Your task to perform on an android device: Go to Reddit.com Image 0: 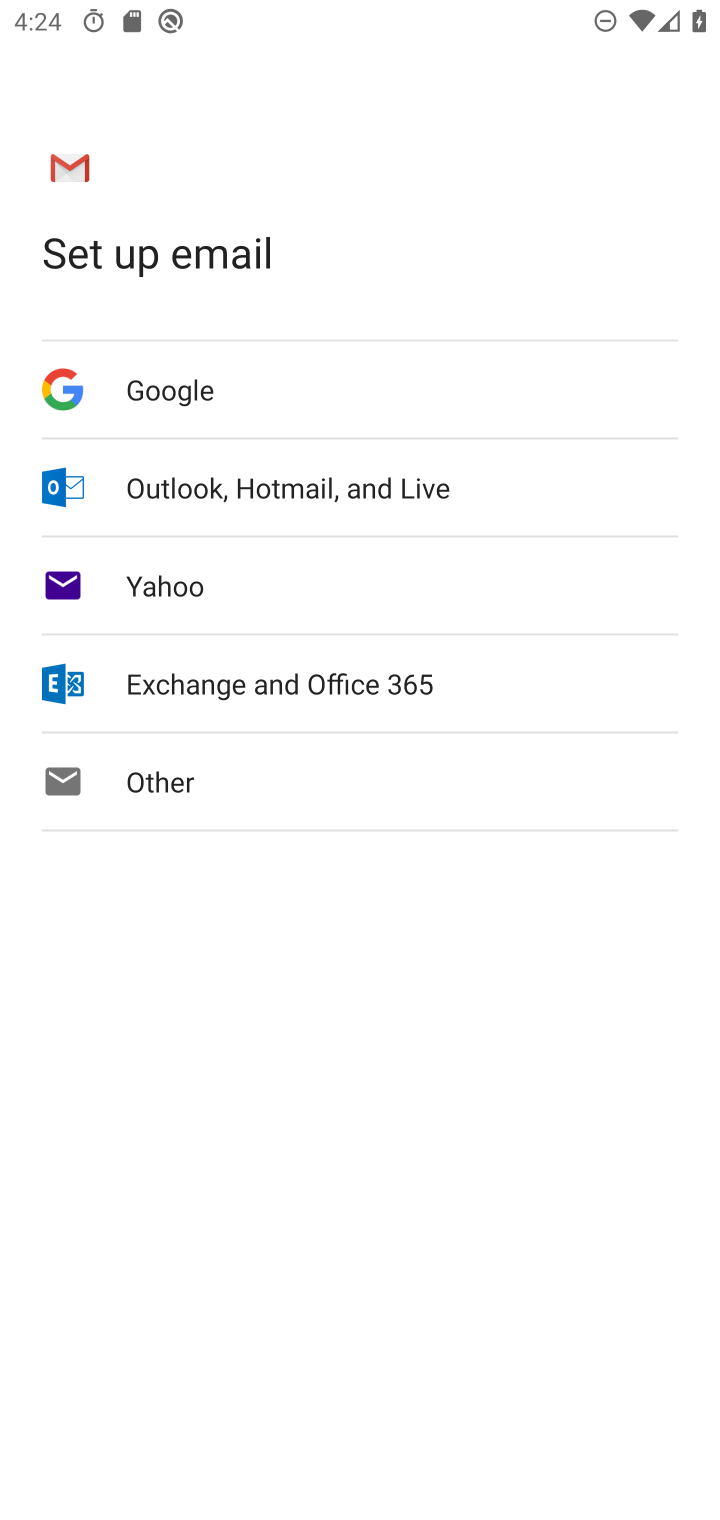
Step 0: press home button
Your task to perform on an android device: Go to Reddit.com Image 1: 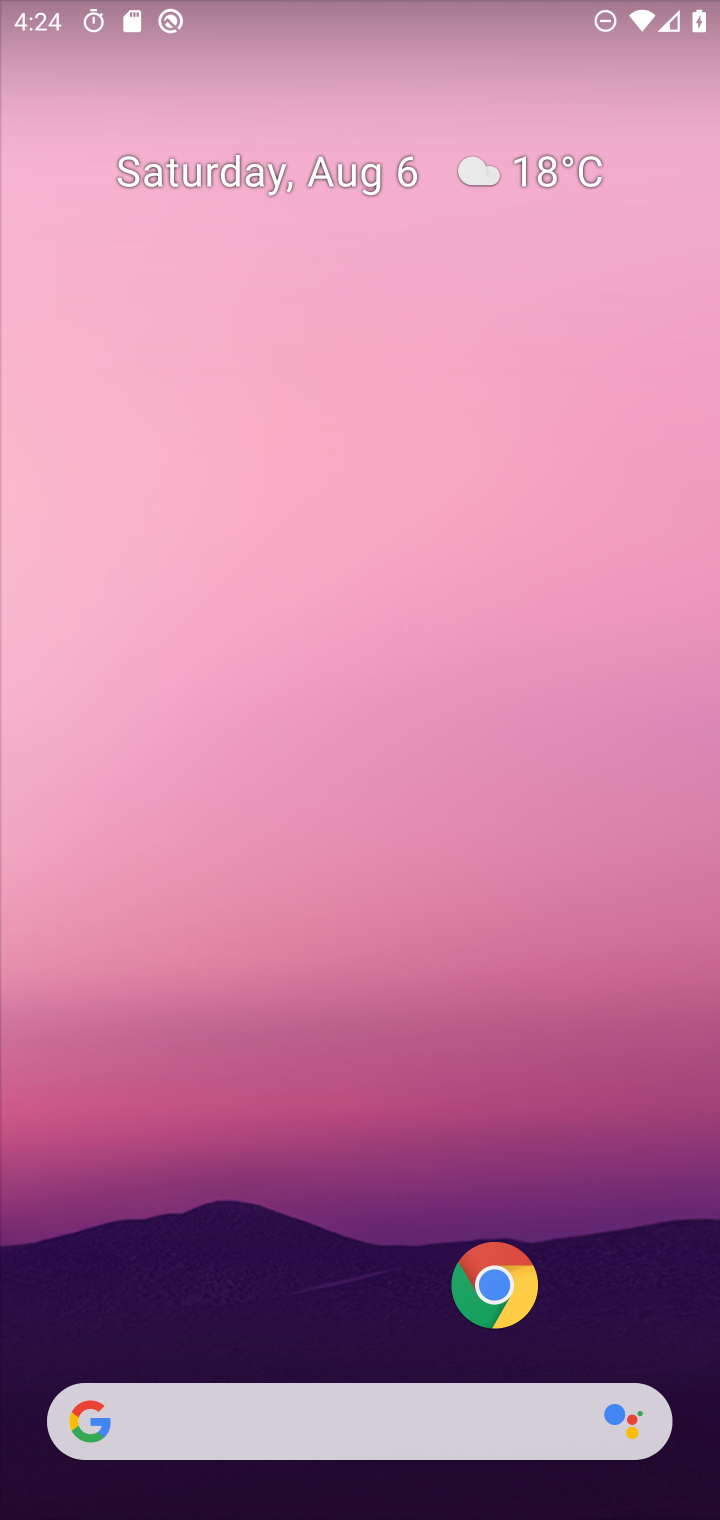
Step 1: drag from (349, 1314) to (356, 155)
Your task to perform on an android device: Go to Reddit.com Image 2: 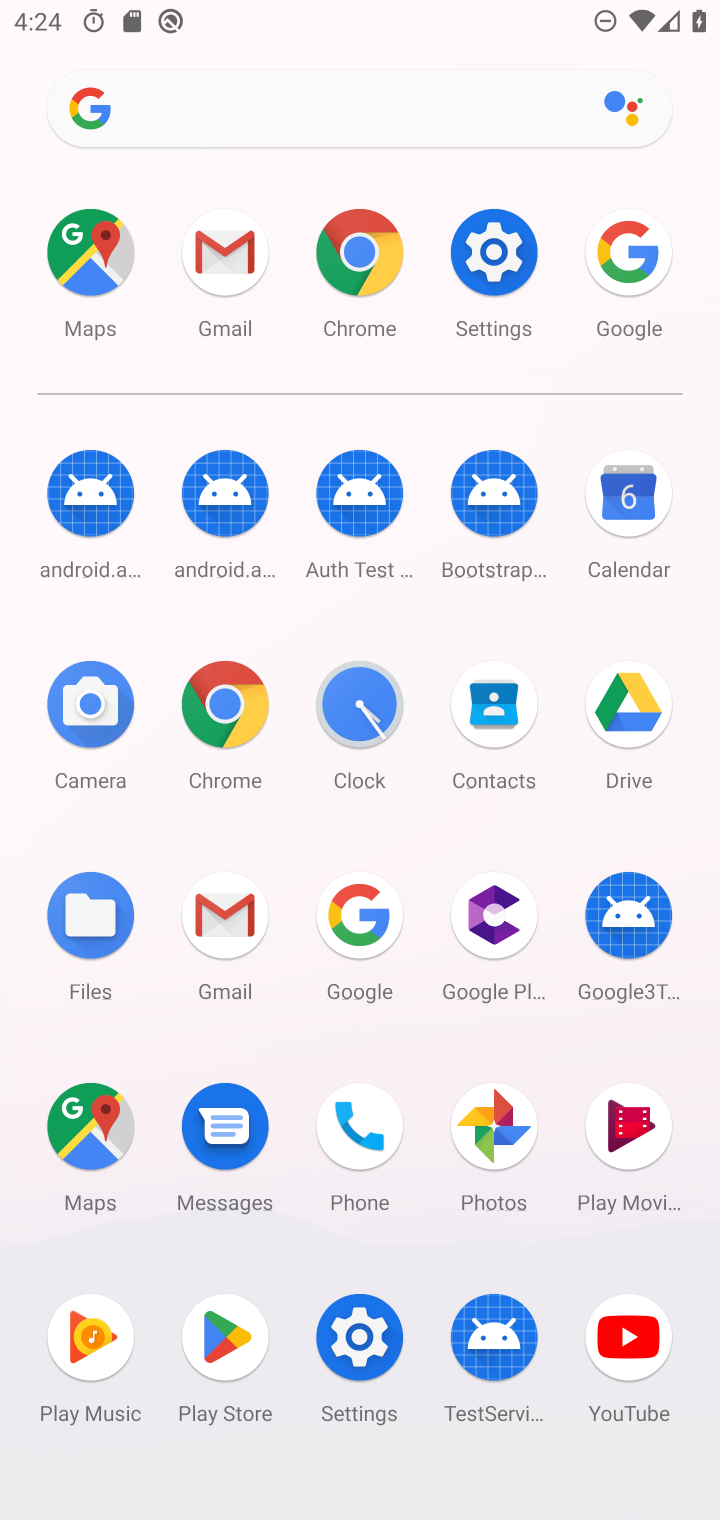
Step 2: click (376, 255)
Your task to perform on an android device: Go to Reddit.com Image 3: 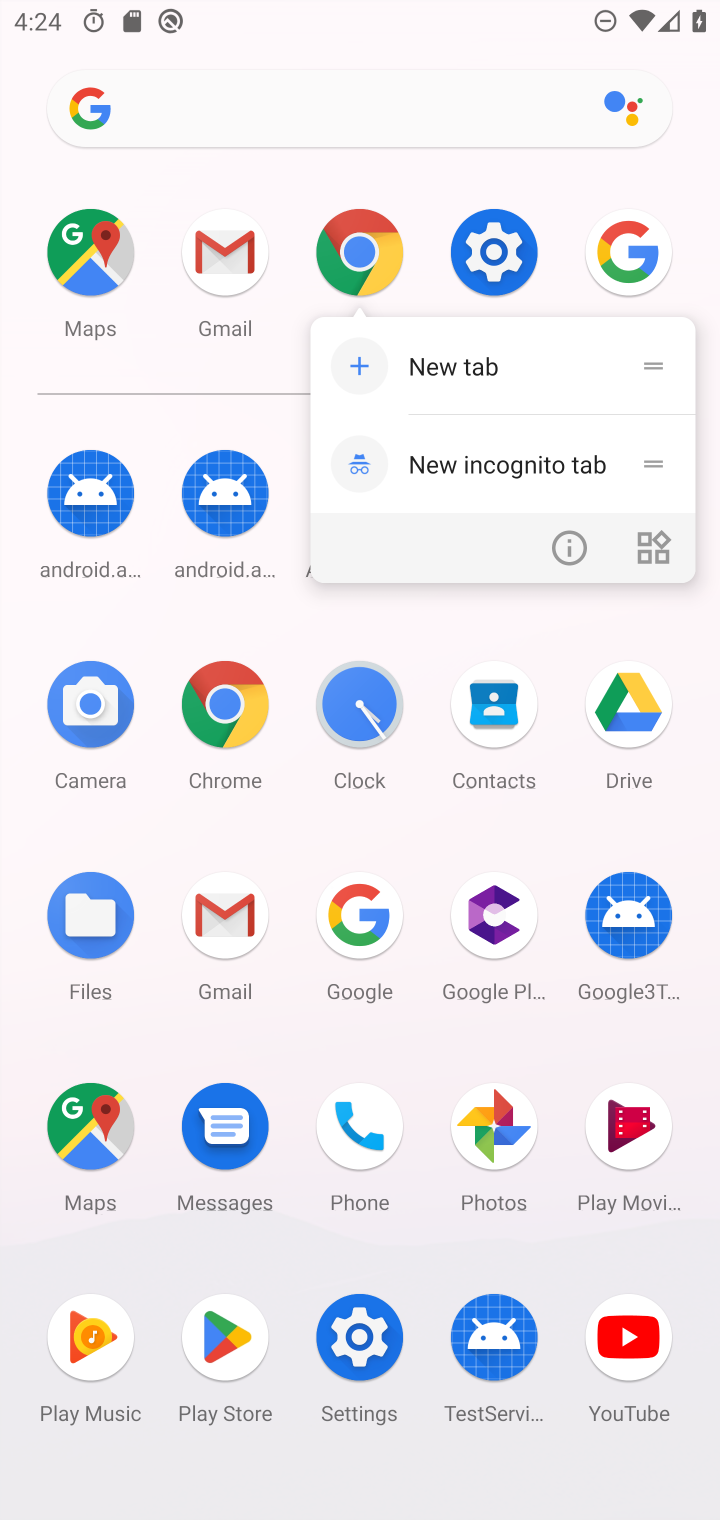
Step 3: click (353, 240)
Your task to perform on an android device: Go to Reddit.com Image 4: 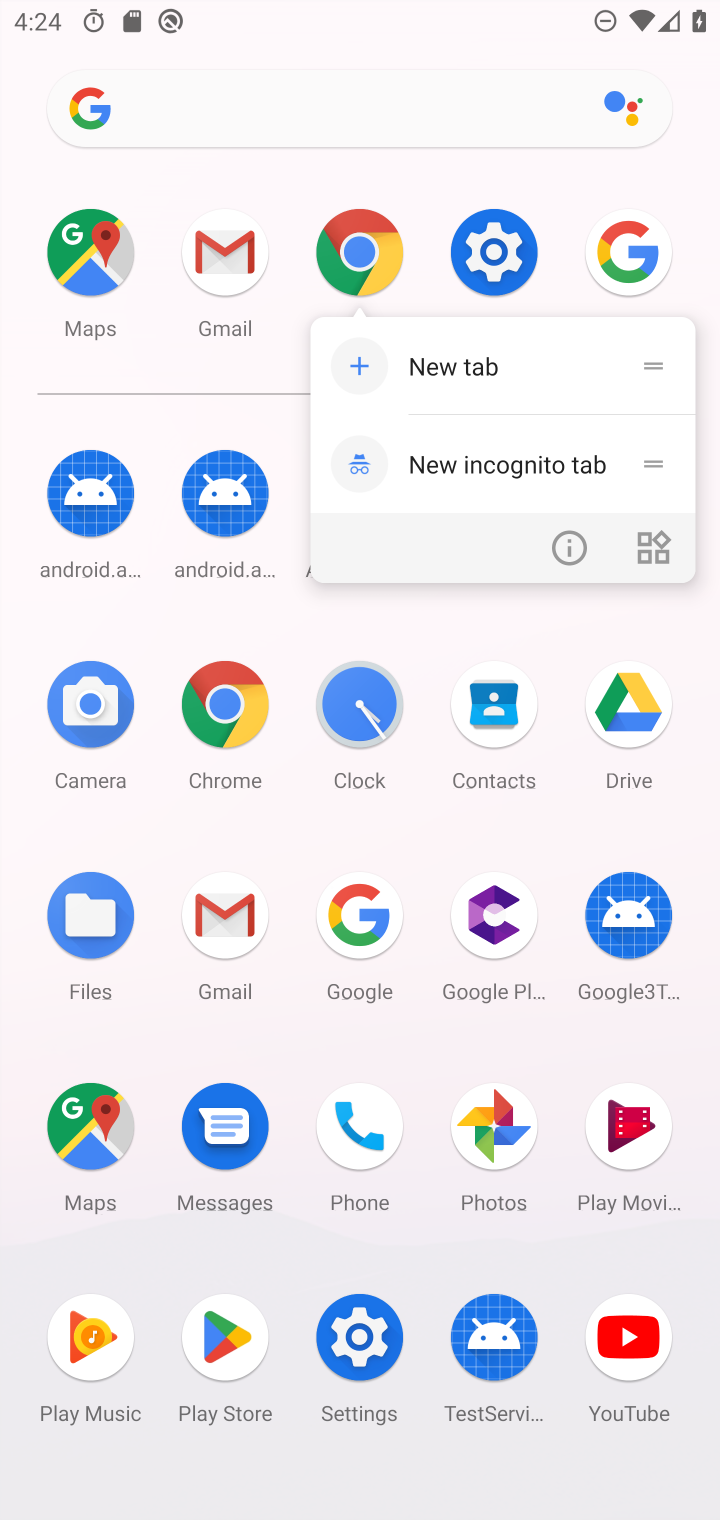
Step 4: click (361, 237)
Your task to perform on an android device: Go to Reddit.com Image 5: 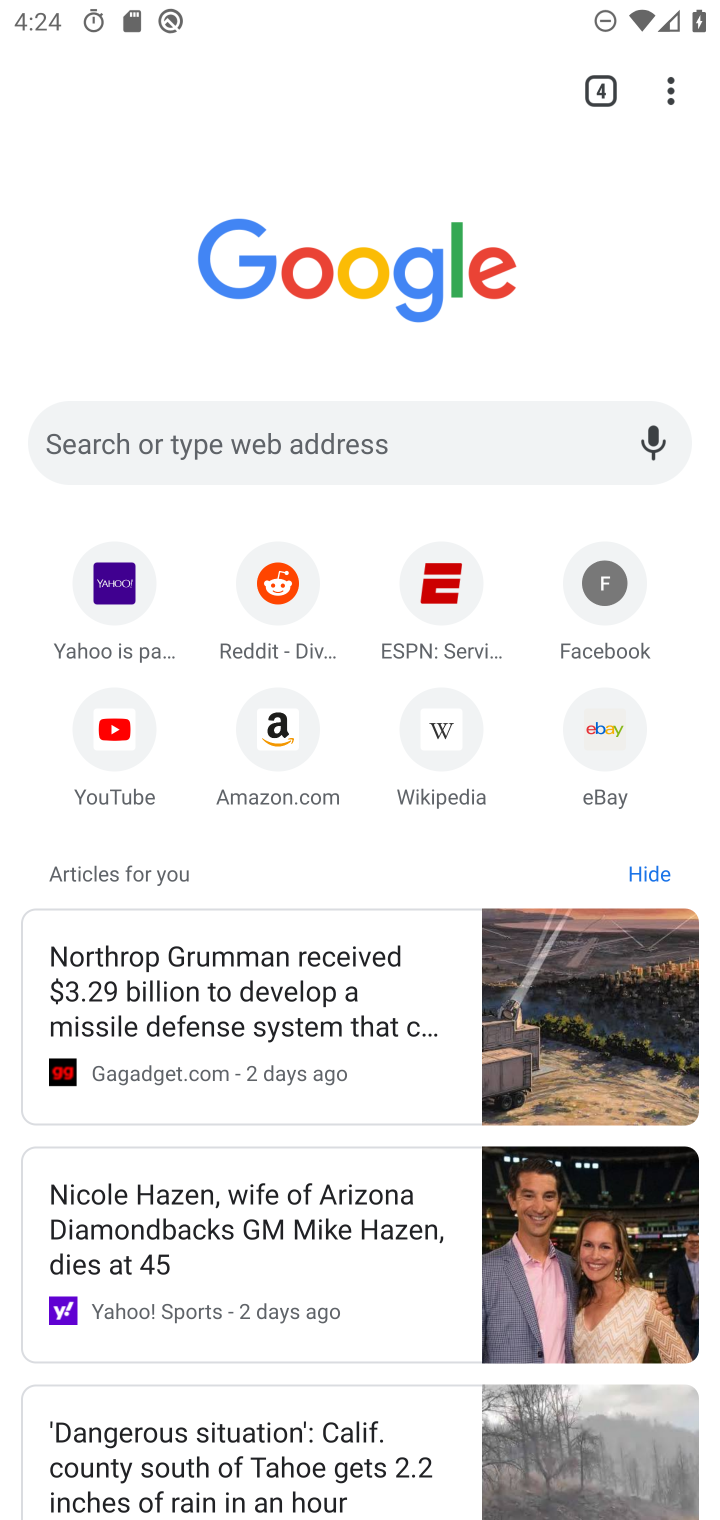
Step 5: click (168, 444)
Your task to perform on an android device: Go to Reddit.com Image 6: 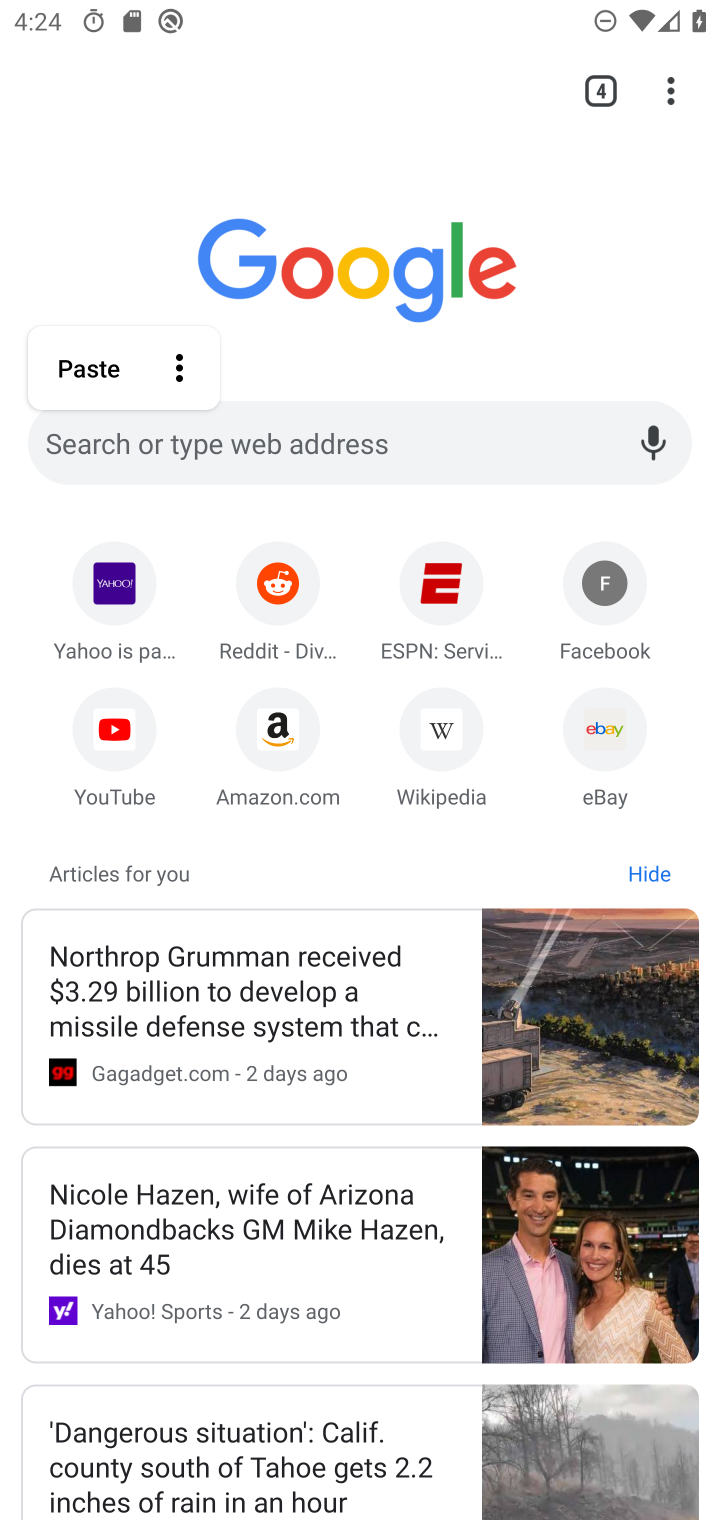
Step 6: click (280, 588)
Your task to perform on an android device: Go to Reddit.com Image 7: 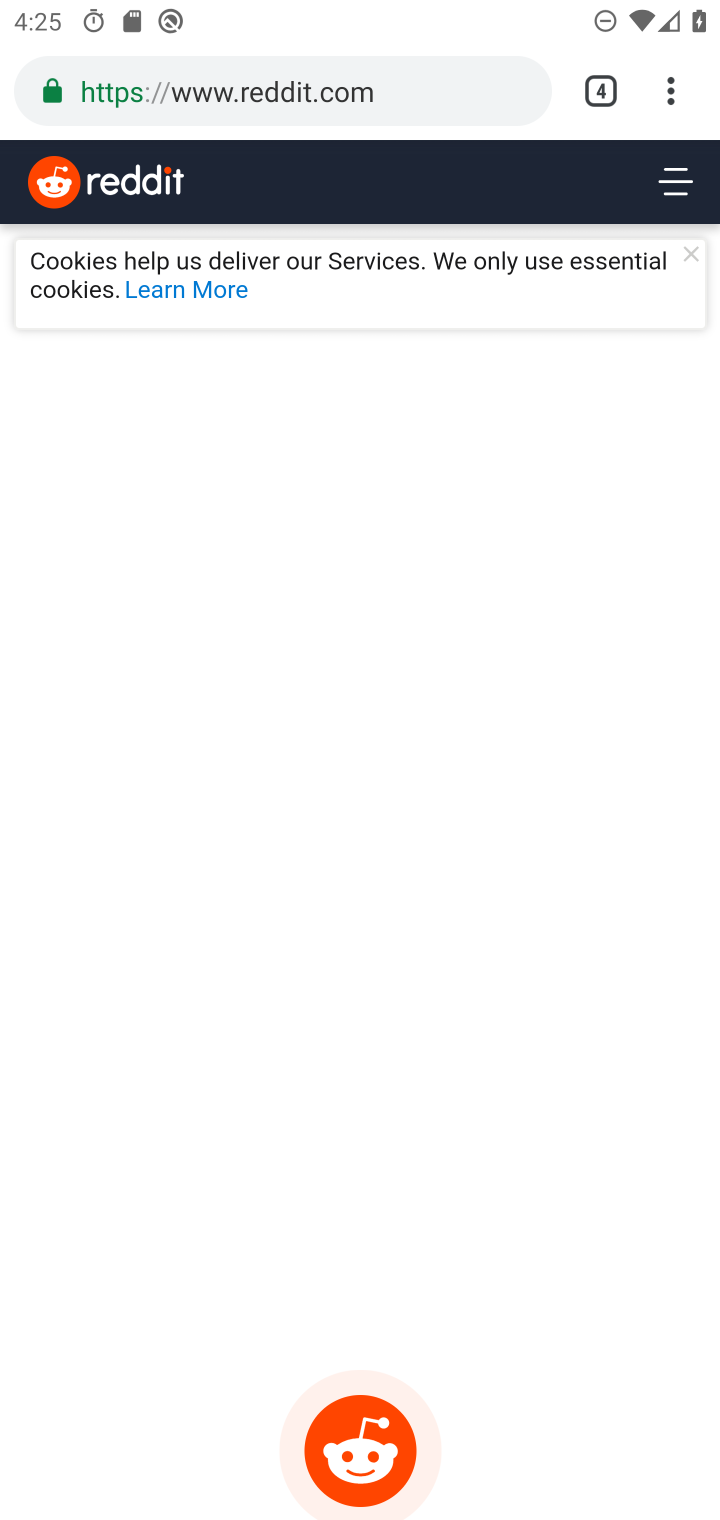
Step 7: task complete